Your task to perform on an android device: What is the news today? Image 0: 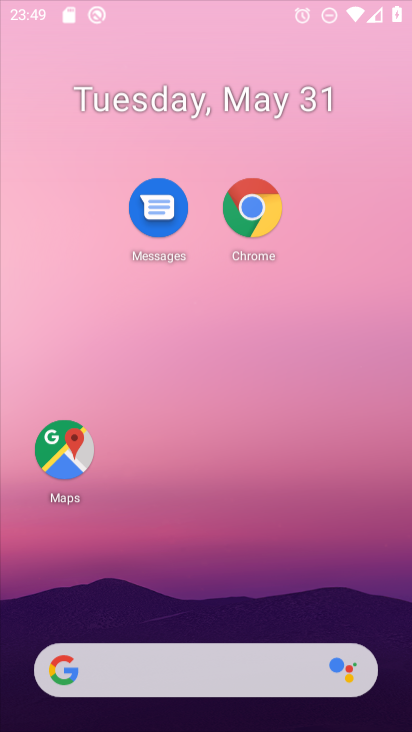
Step 0: press home button
Your task to perform on an android device: What is the news today? Image 1: 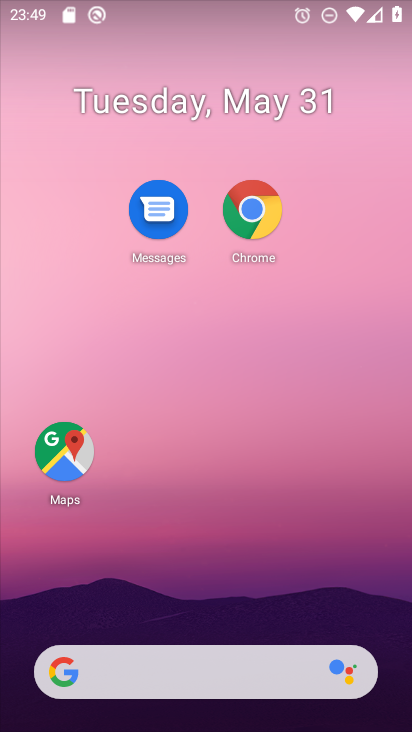
Step 1: task complete